Your task to perform on an android device: set the timer Image 0: 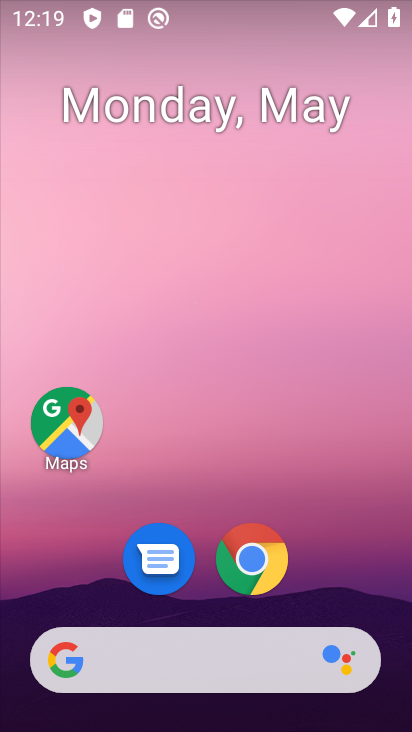
Step 0: drag from (94, 612) to (195, 117)
Your task to perform on an android device: set the timer Image 1: 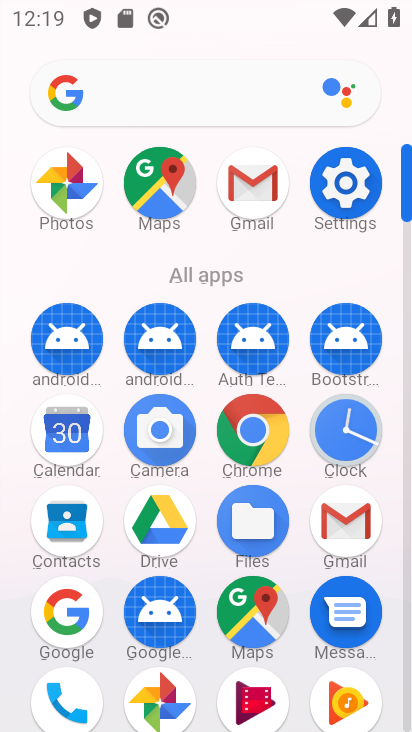
Step 1: click (359, 435)
Your task to perform on an android device: set the timer Image 2: 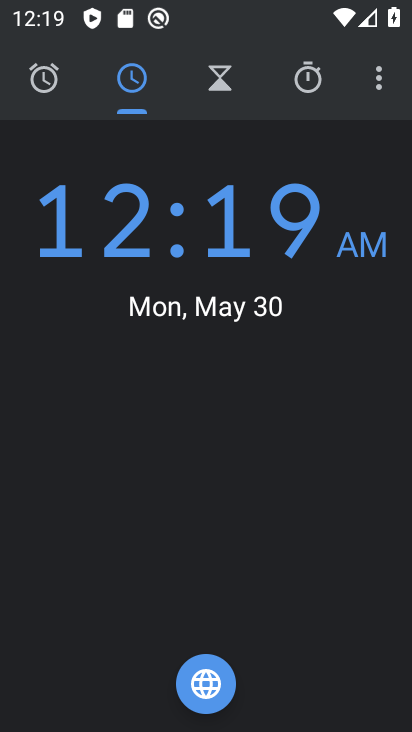
Step 2: click (234, 93)
Your task to perform on an android device: set the timer Image 3: 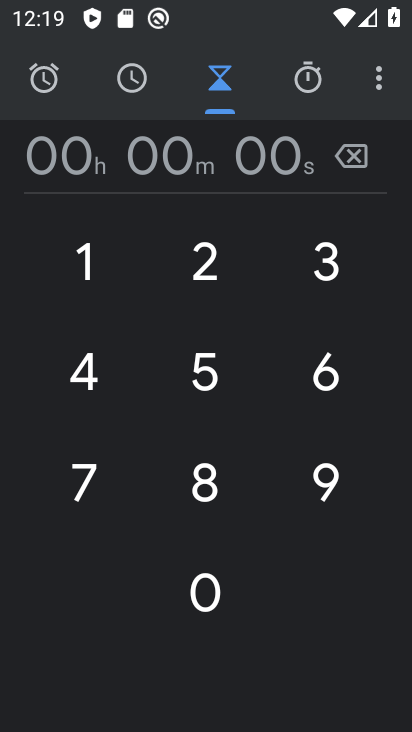
Step 3: click (329, 501)
Your task to perform on an android device: set the timer Image 4: 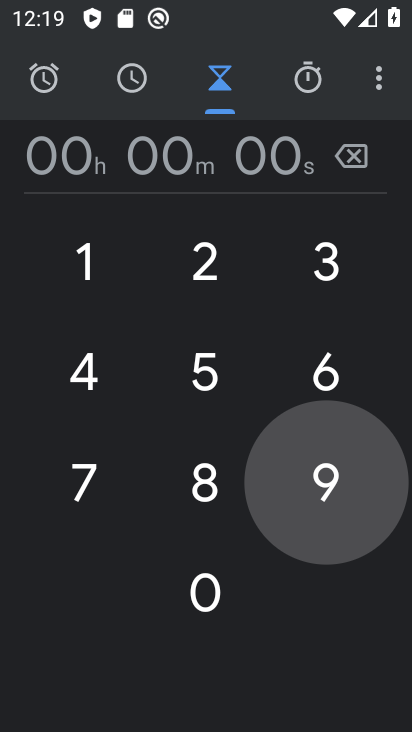
Step 4: click (329, 501)
Your task to perform on an android device: set the timer Image 5: 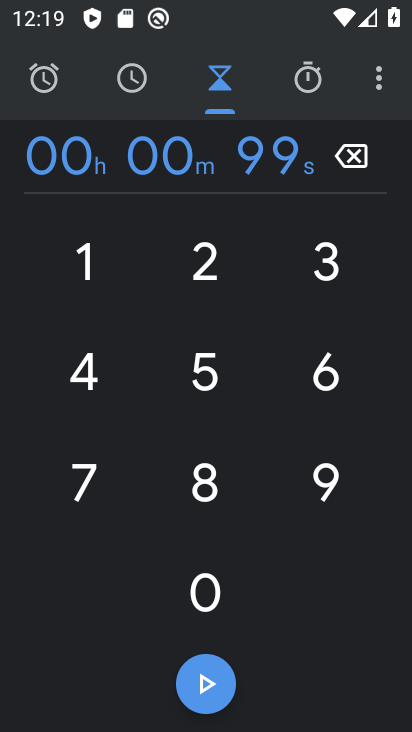
Step 5: click (82, 485)
Your task to perform on an android device: set the timer Image 6: 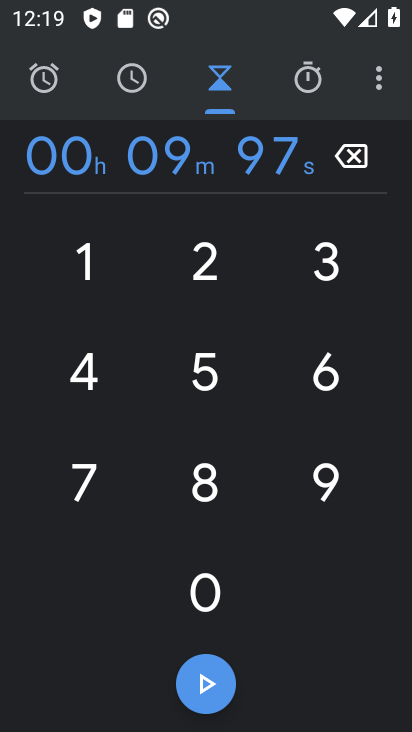
Step 6: click (82, 483)
Your task to perform on an android device: set the timer Image 7: 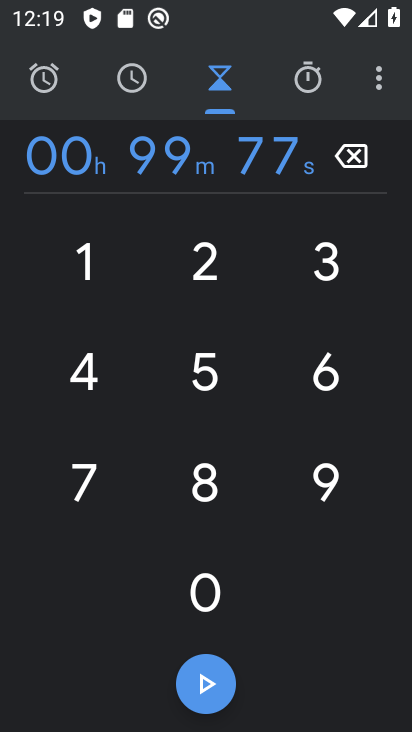
Step 7: click (198, 278)
Your task to perform on an android device: set the timer Image 8: 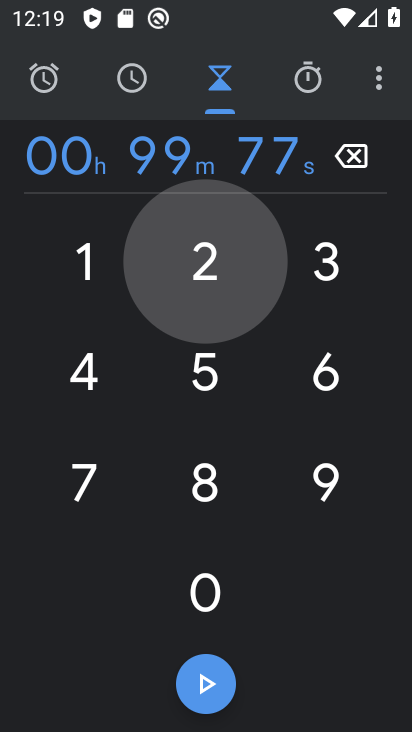
Step 8: click (199, 277)
Your task to perform on an android device: set the timer Image 9: 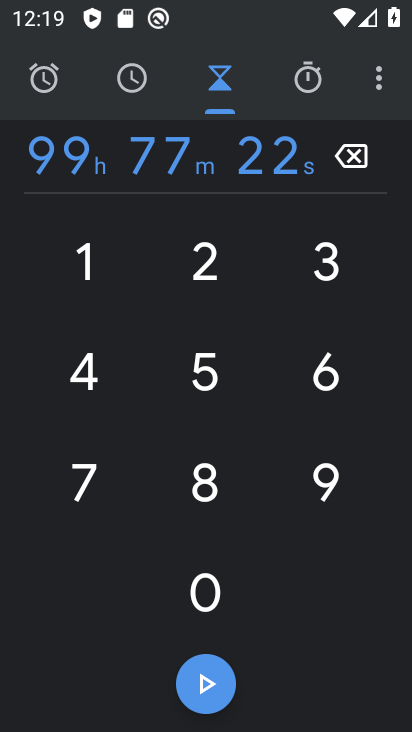
Step 9: click (218, 694)
Your task to perform on an android device: set the timer Image 10: 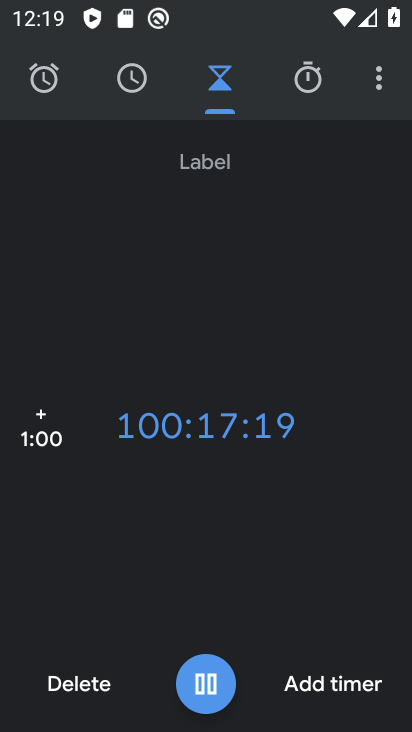
Step 10: task complete